Your task to perform on an android device: search for starred emails in the gmail app Image 0: 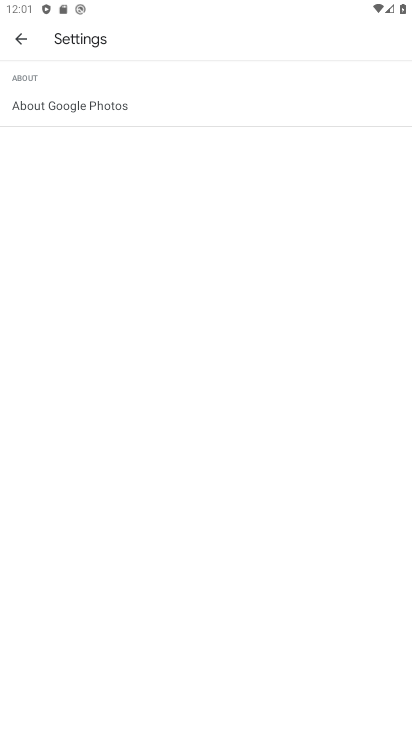
Step 0: press home button
Your task to perform on an android device: search for starred emails in the gmail app Image 1: 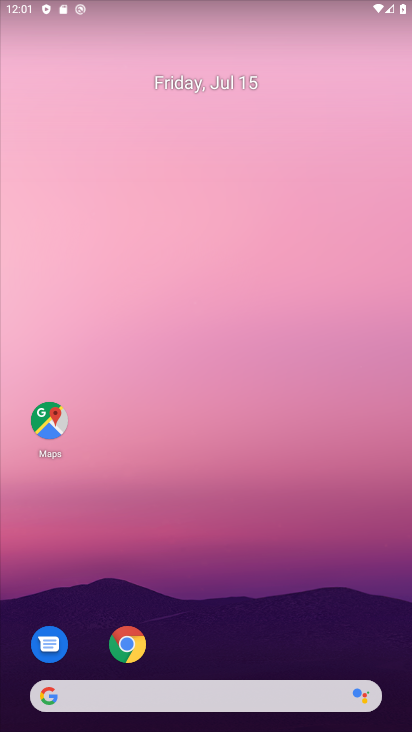
Step 1: drag from (363, 621) to (221, 26)
Your task to perform on an android device: search for starred emails in the gmail app Image 2: 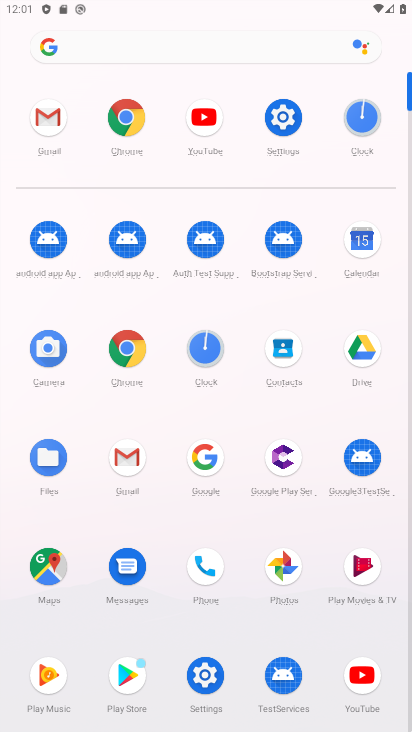
Step 2: click (131, 458)
Your task to perform on an android device: search for starred emails in the gmail app Image 3: 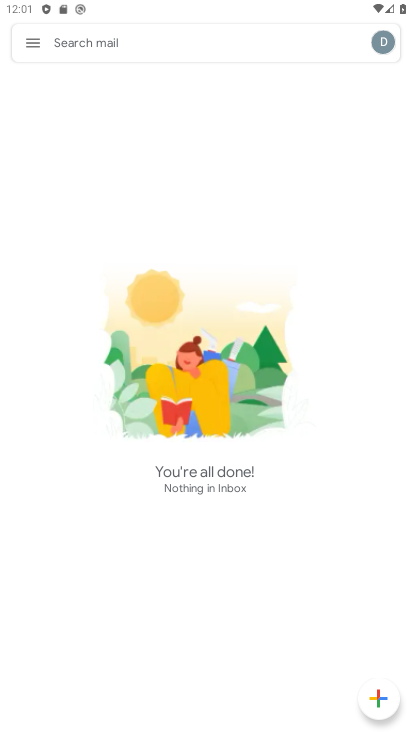
Step 3: click (22, 44)
Your task to perform on an android device: search for starred emails in the gmail app Image 4: 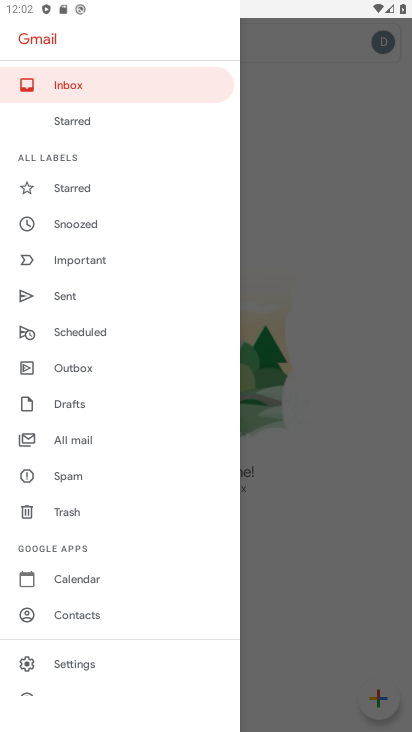
Step 4: click (86, 189)
Your task to perform on an android device: search for starred emails in the gmail app Image 5: 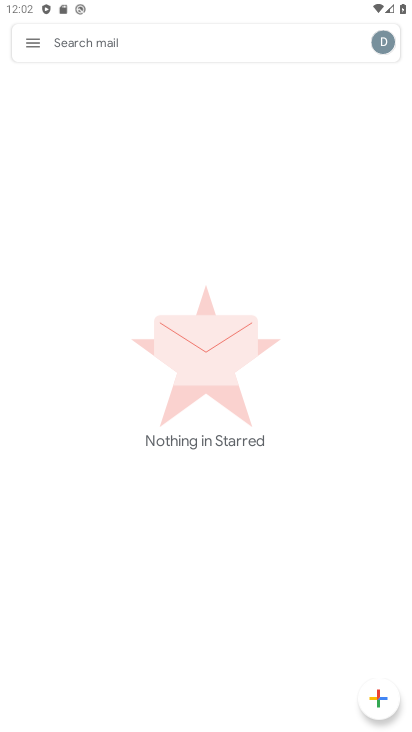
Step 5: task complete